Your task to perform on an android device: Search for sushi restaurants on Maps Image 0: 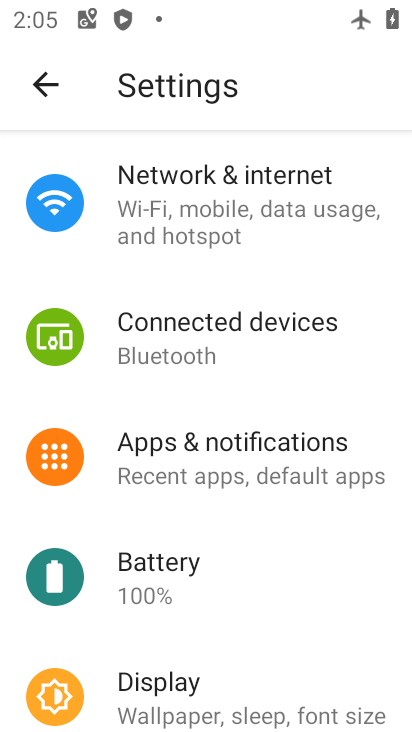
Step 0: press home button
Your task to perform on an android device: Search for sushi restaurants on Maps Image 1: 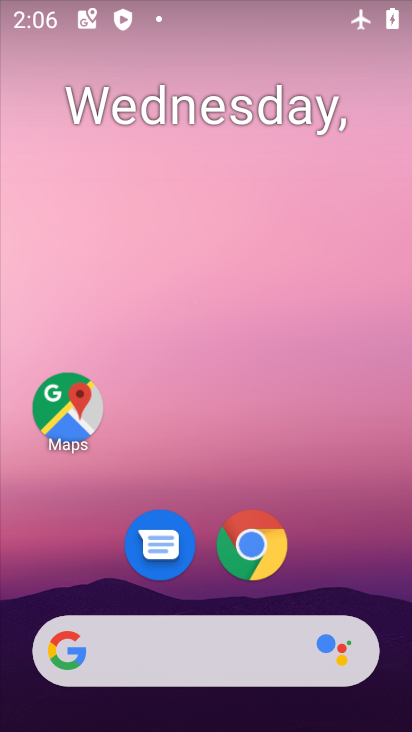
Step 1: click (65, 411)
Your task to perform on an android device: Search for sushi restaurants on Maps Image 2: 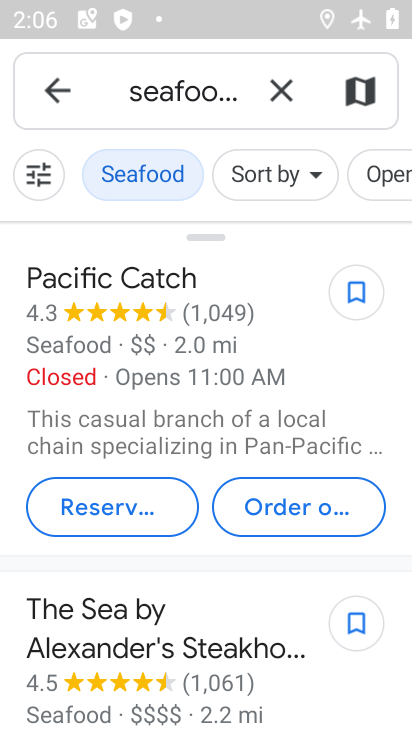
Step 2: click (154, 86)
Your task to perform on an android device: Search for sushi restaurants on Maps Image 3: 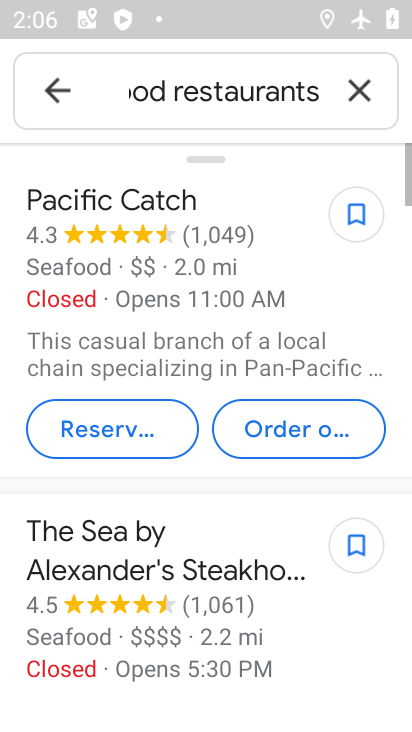
Step 3: click (218, 91)
Your task to perform on an android device: Search for sushi restaurants on Maps Image 4: 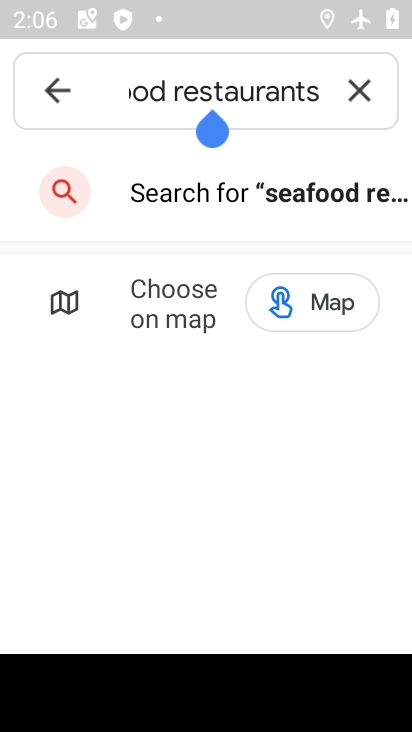
Step 4: click (356, 80)
Your task to perform on an android device: Search for sushi restaurants on Maps Image 5: 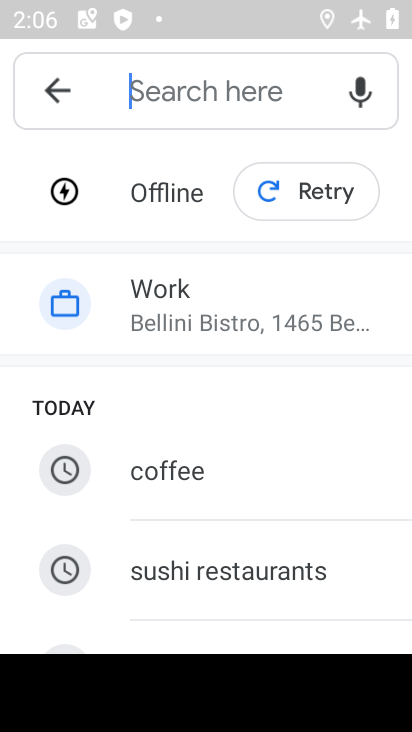
Step 5: click (199, 556)
Your task to perform on an android device: Search for sushi restaurants on Maps Image 6: 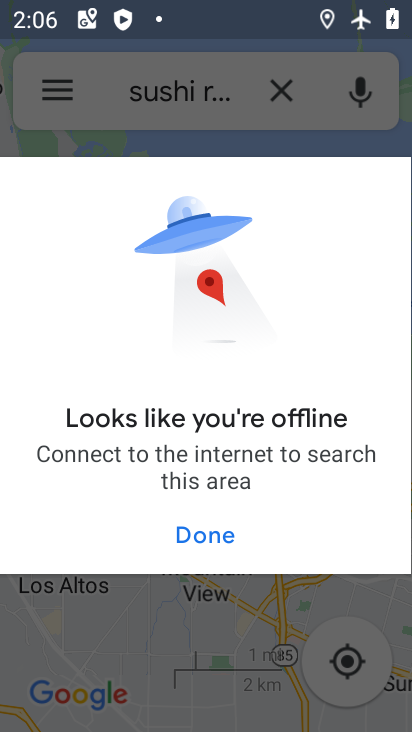
Step 6: task complete